Your task to perform on an android device: stop showing notifications on the lock screen Image 0: 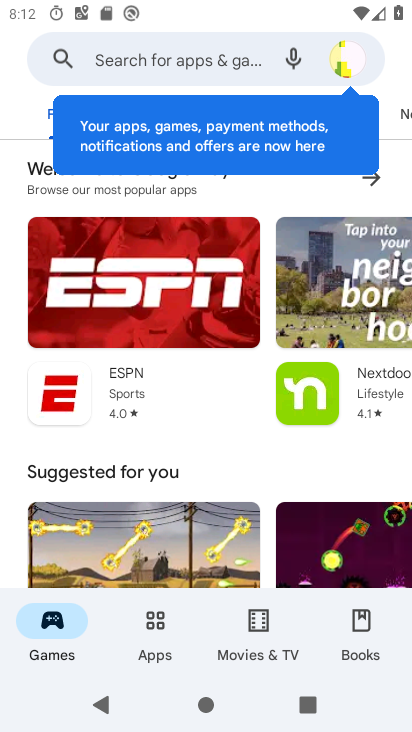
Step 0: press home button
Your task to perform on an android device: stop showing notifications on the lock screen Image 1: 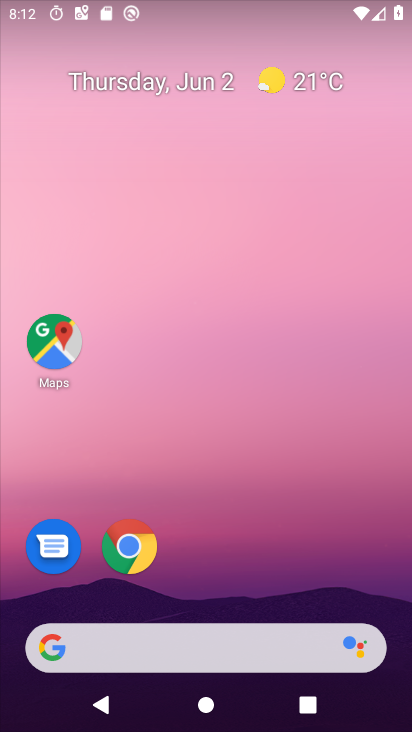
Step 1: drag from (215, 494) to (213, 197)
Your task to perform on an android device: stop showing notifications on the lock screen Image 2: 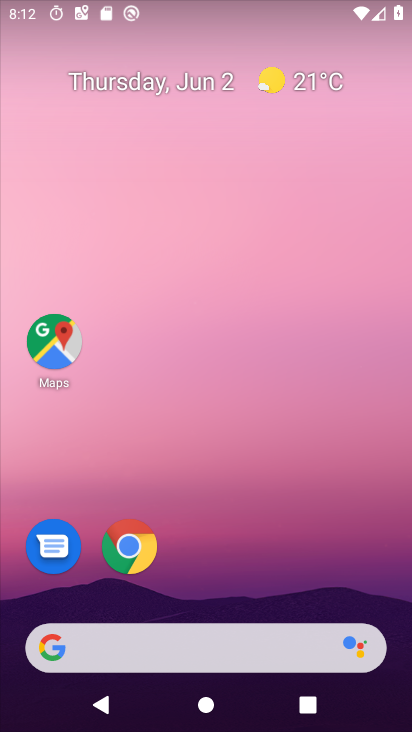
Step 2: drag from (223, 556) to (274, 189)
Your task to perform on an android device: stop showing notifications on the lock screen Image 3: 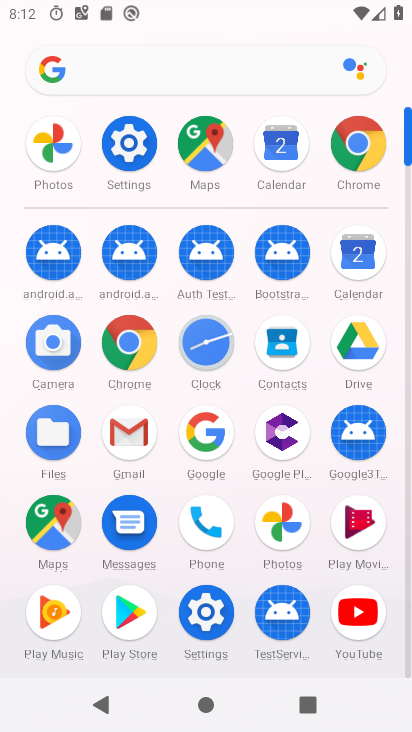
Step 3: click (105, 141)
Your task to perform on an android device: stop showing notifications on the lock screen Image 4: 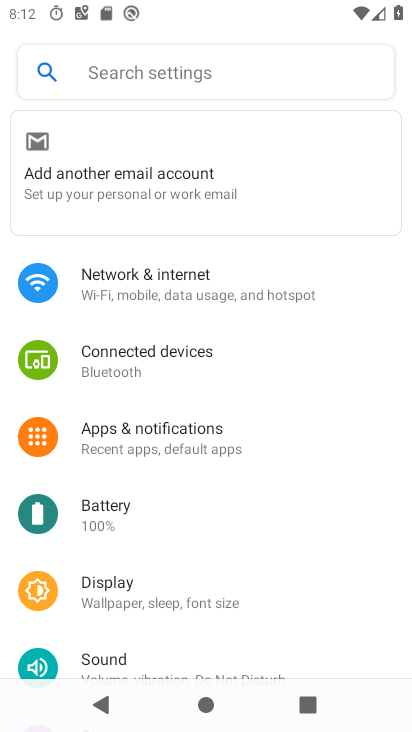
Step 4: click (176, 426)
Your task to perform on an android device: stop showing notifications on the lock screen Image 5: 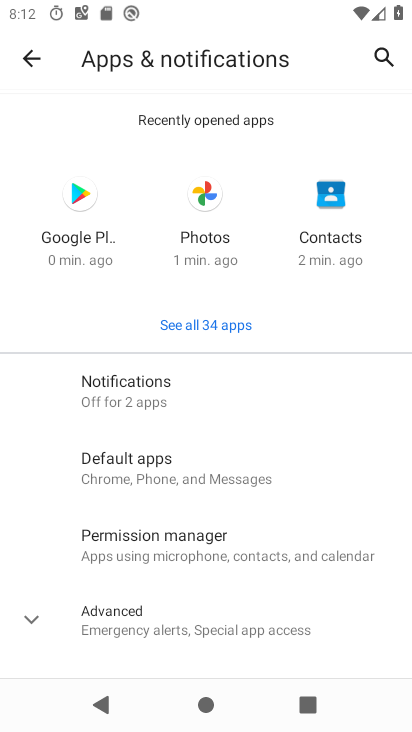
Step 5: click (177, 393)
Your task to perform on an android device: stop showing notifications on the lock screen Image 6: 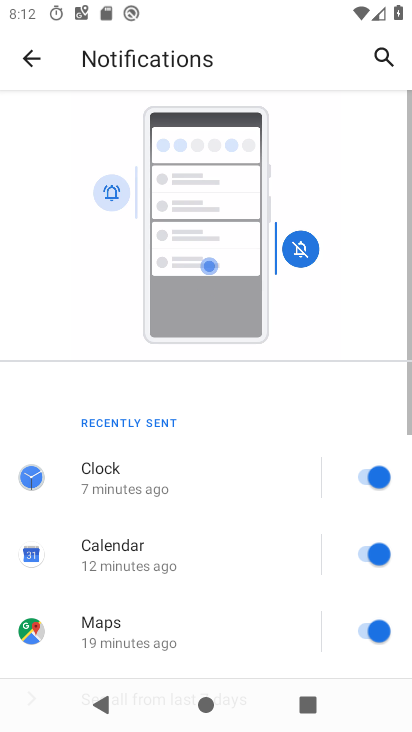
Step 6: drag from (206, 592) to (259, 305)
Your task to perform on an android device: stop showing notifications on the lock screen Image 7: 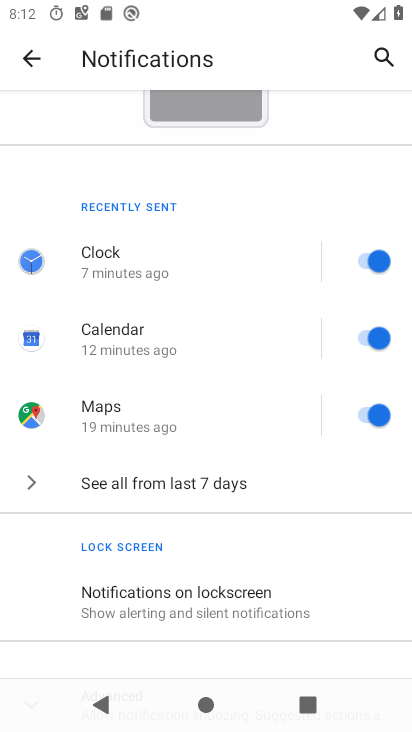
Step 7: click (261, 619)
Your task to perform on an android device: stop showing notifications on the lock screen Image 8: 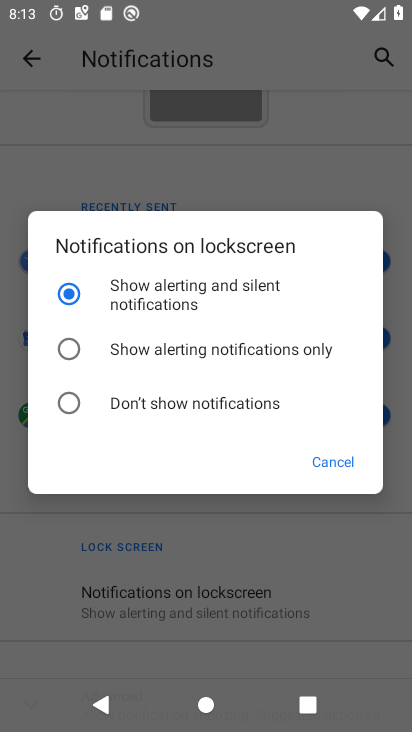
Step 8: click (210, 395)
Your task to perform on an android device: stop showing notifications on the lock screen Image 9: 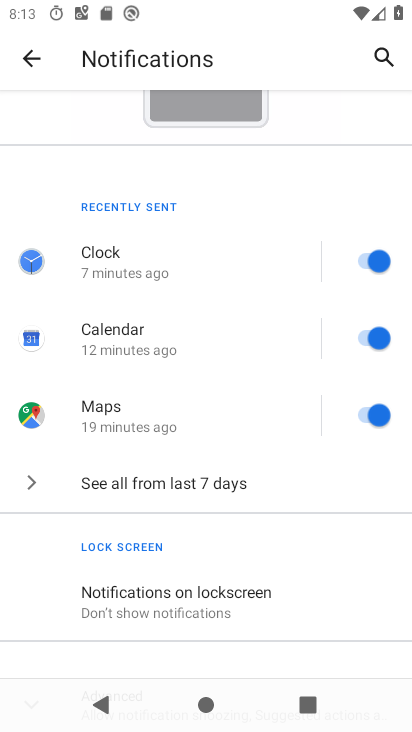
Step 9: task complete